Your task to perform on an android device: turn on location history Image 0: 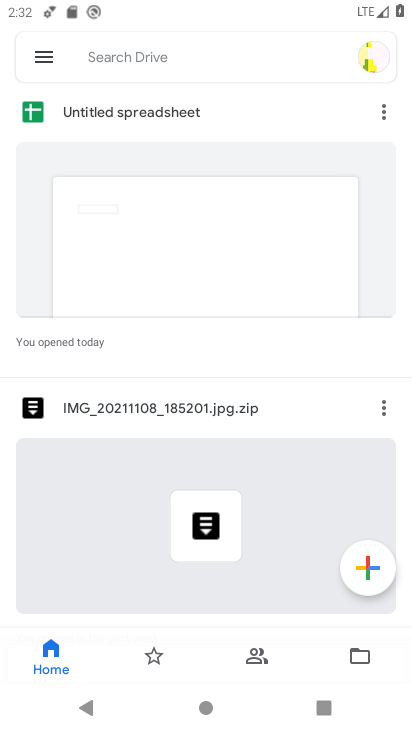
Step 0: press home button
Your task to perform on an android device: turn on location history Image 1: 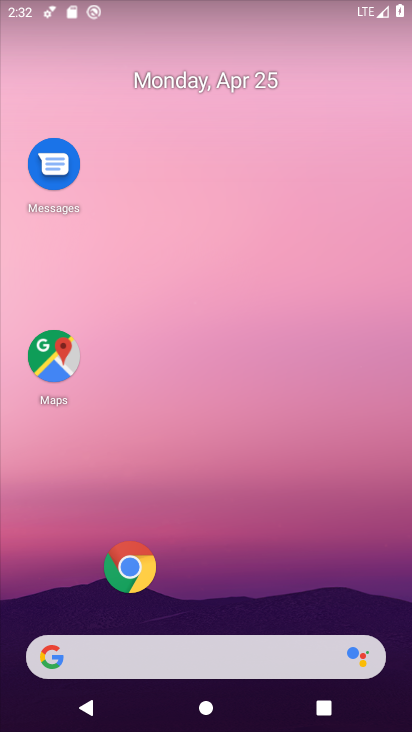
Step 1: drag from (210, 640) to (259, 128)
Your task to perform on an android device: turn on location history Image 2: 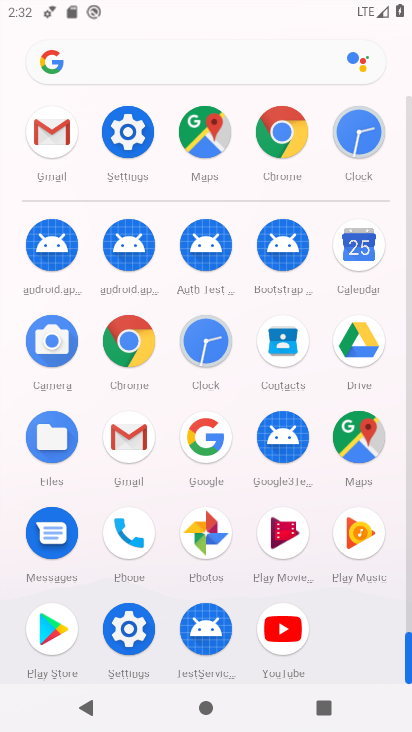
Step 2: click (122, 141)
Your task to perform on an android device: turn on location history Image 3: 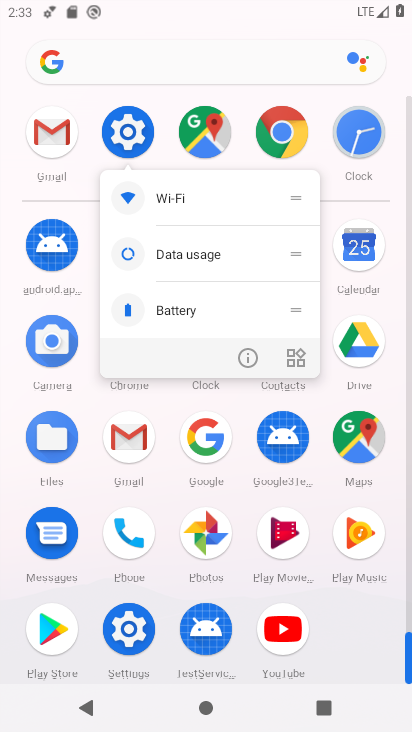
Step 3: click (122, 140)
Your task to perform on an android device: turn on location history Image 4: 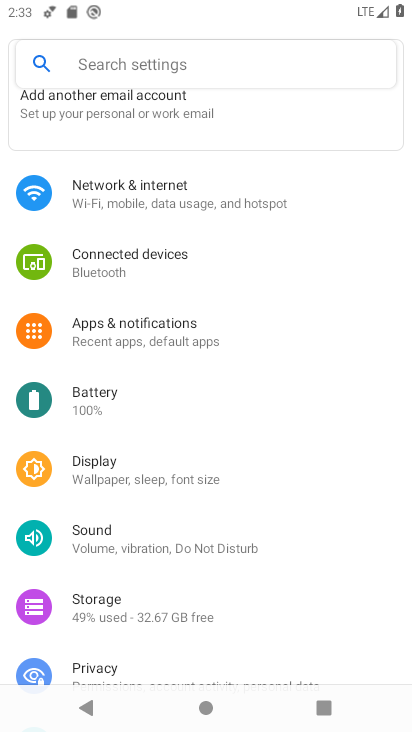
Step 4: drag from (132, 518) to (151, 274)
Your task to perform on an android device: turn on location history Image 5: 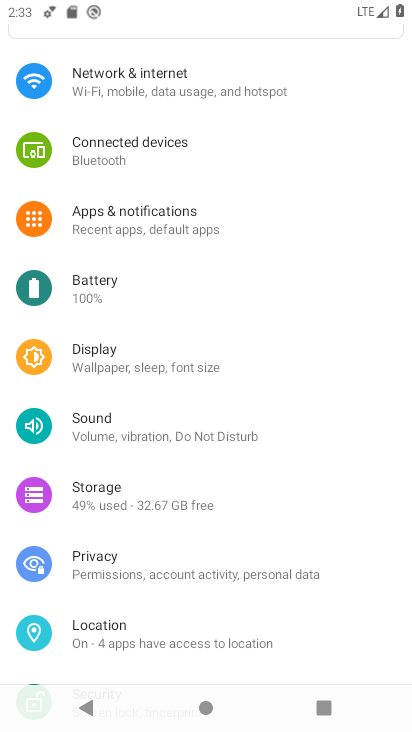
Step 5: drag from (118, 579) to (91, 294)
Your task to perform on an android device: turn on location history Image 6: 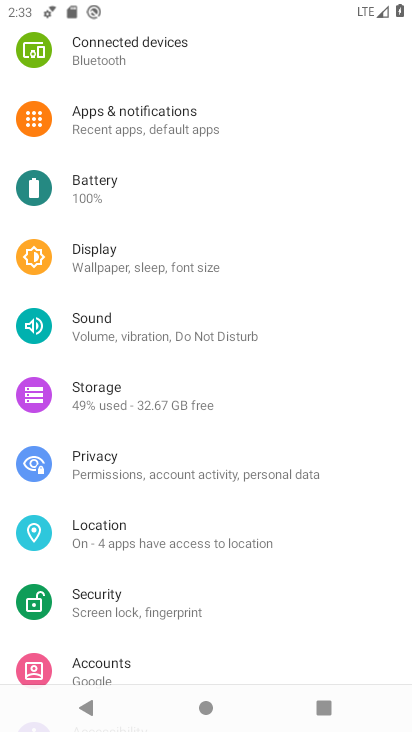
Step 6: click (124, 538)
Your task to perform on an android device: turn on location history Image 7: 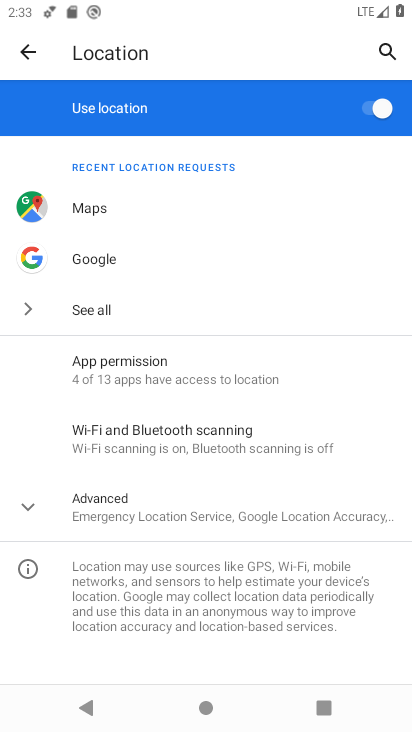
Step 7: click (154, 526)
Your task to perform on an android device: turn on location history Image 8: 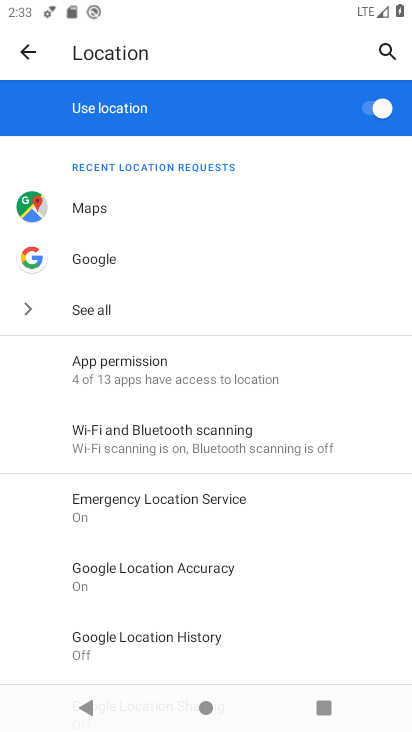
Step 8: click (173, 660)
Your task to perform on an android device: turn on location history Image 9: 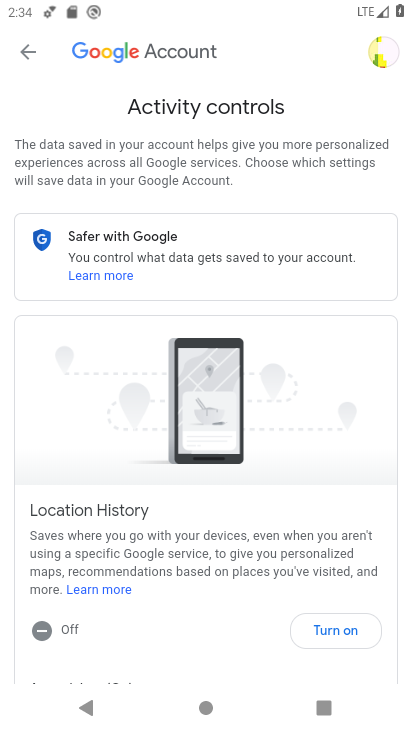
Step 9: click (322, 624)
Your task to perform on an android device: turn on location history Image 10: 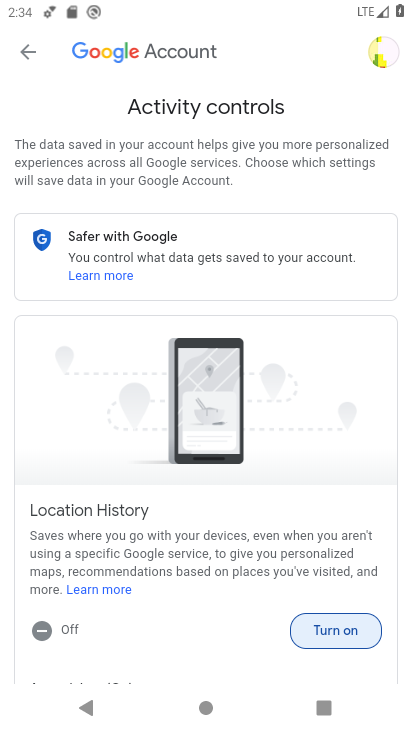
Step 10: click (319, 623)
Your task to perform on an android device: turn on location history Image 11: 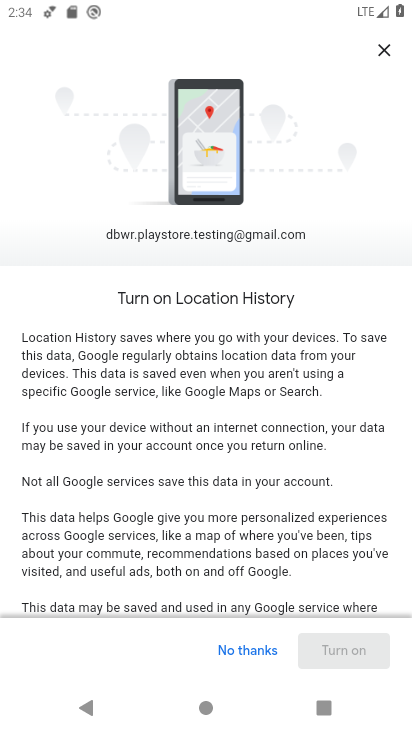
Step 11: drag from (310, 464) to (323, 139)
Your task to perform on an android device: turn on location history Image 12: 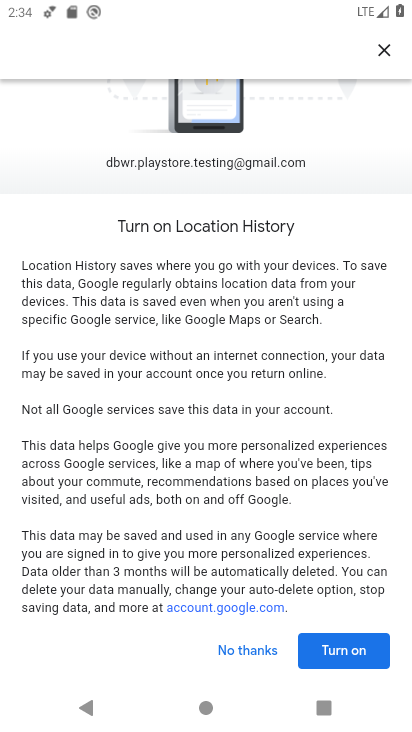
Step 12: click (362, 661)
Your task to perform on an android device: turn on location history Image 13: 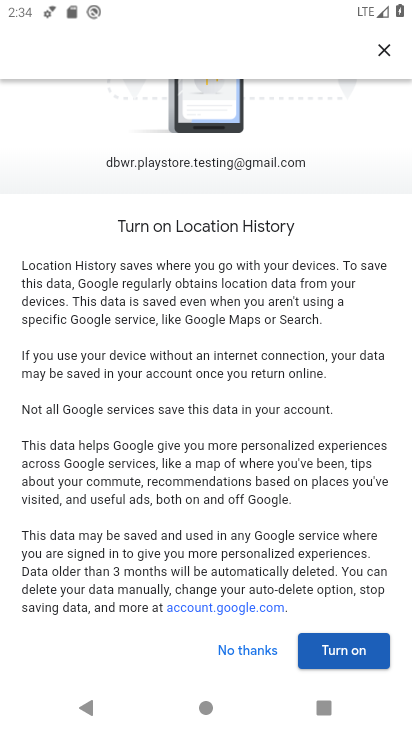
Step 13: click (322, 651)
Your task to perform on an android device: turn on location history Image 14: 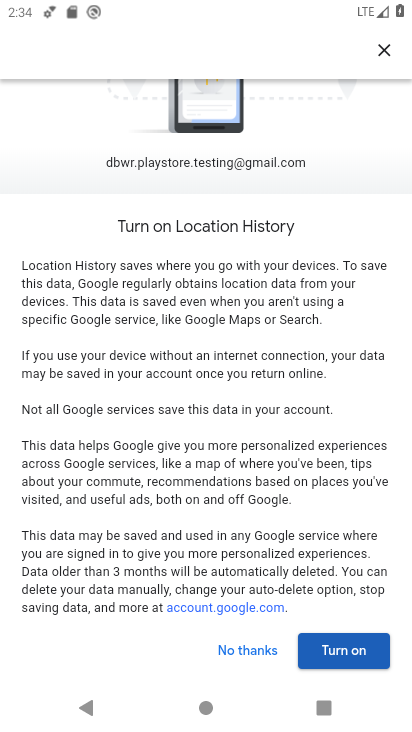
Step 14: click (352, 662)
Your task to perform on an android device: turn on location history Image 15: 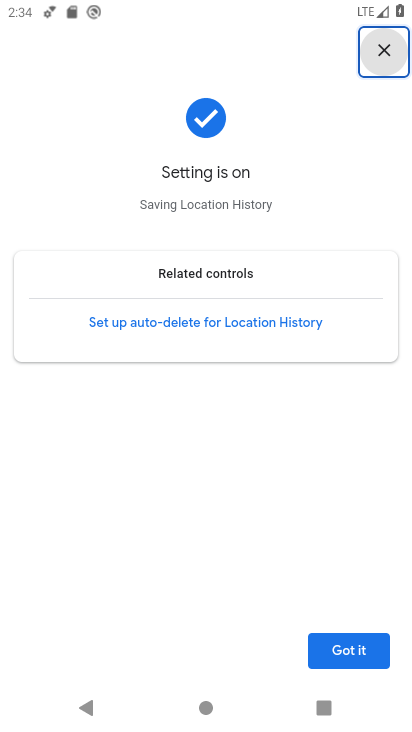
Step 15: click (358, 658)
Your task to perform on an android device: turn on location history Image 16: 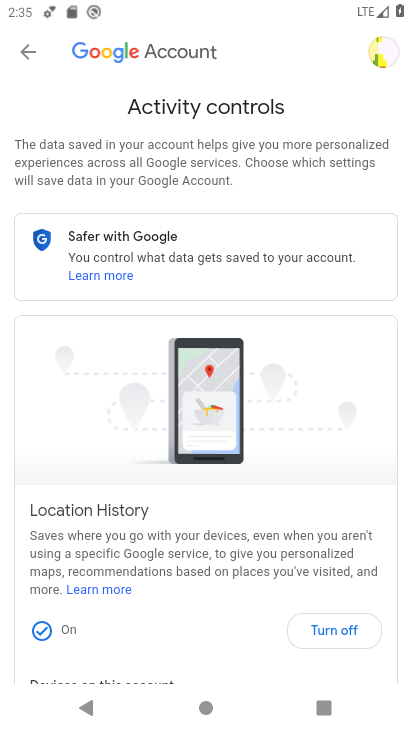
Step 16: task complete